Your task to perform on an android device: When is my next appointment? Image 0: 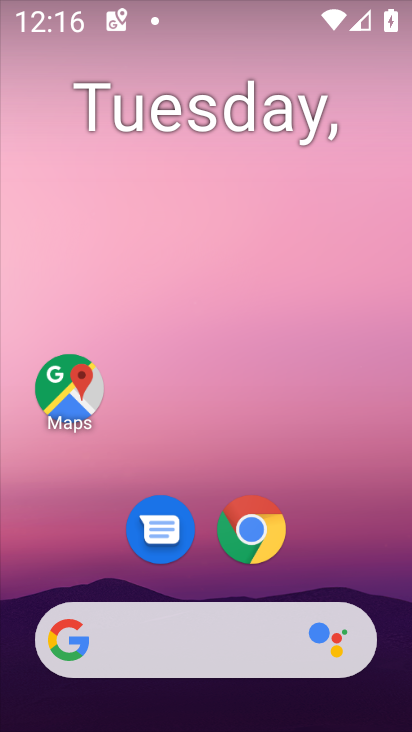
Step 0: drag from (185, 571) to (249, 81)
Your task to perform on an android device: When is my next appointment? Image 1: 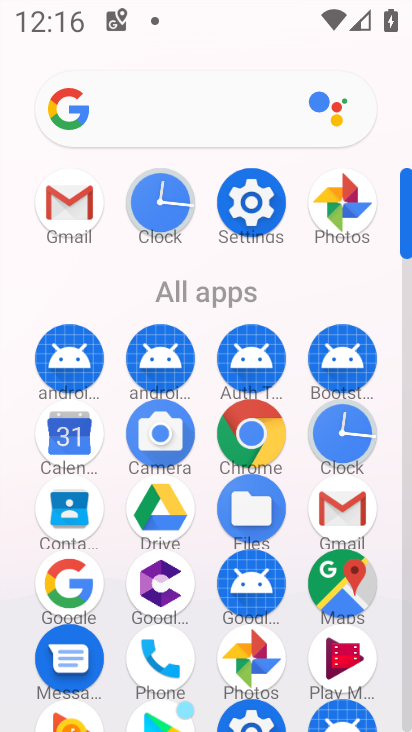
Step 1: click (75, 435)
Your task to perform on an android device: When is my next appointment? Image 2: 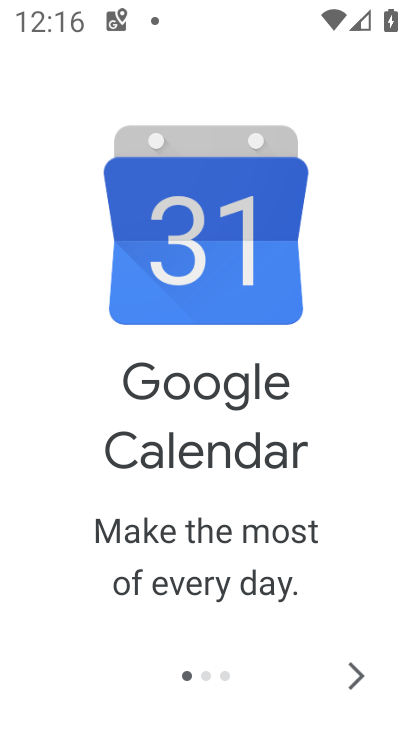
Step 2: click (361, 680)
Your task to perform on an android device: When is my next appointment? Image 3: 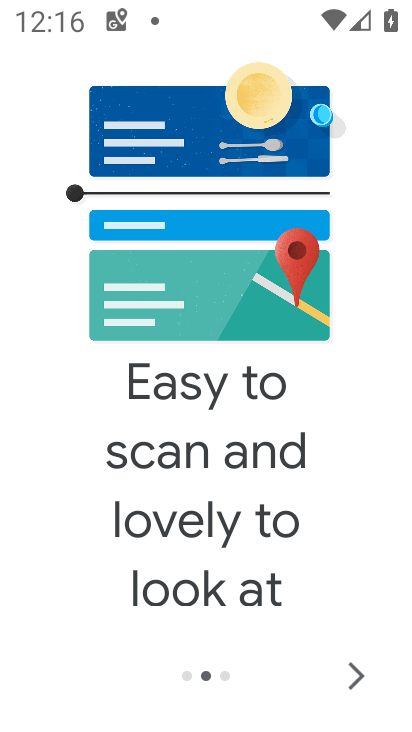
Step 3: click (352, 670)
Your task to perform on an android device: When is my next appointment? Image 4: 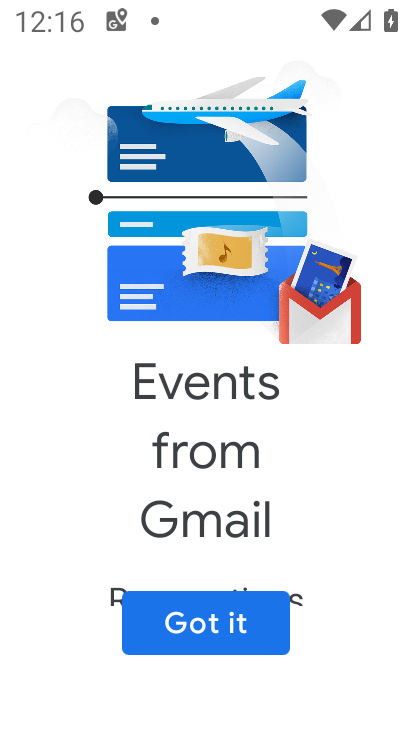
Step 4: click (241, 630)
Your task to perform on an android device: When is my next appointment? Image 5: 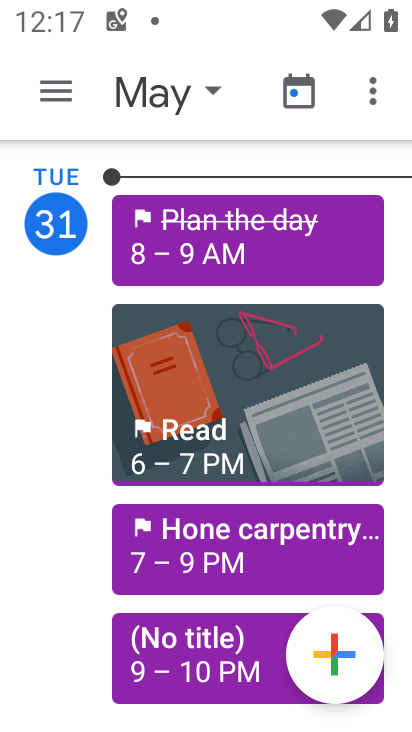
Step 5: drag from (211, 487) to (261, 124)
Your task to perform on an android device: When is my next appointment? Image 6: 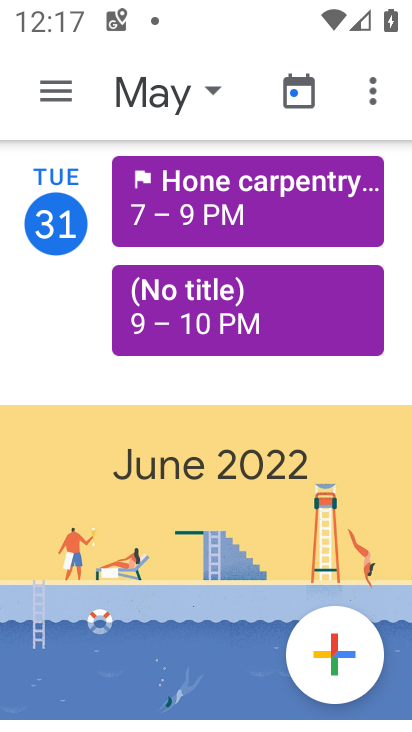
Step 6: drag from (236, 581) to (280, 130)
Your task to perform on an android device: When is my next appointment? Image 7: 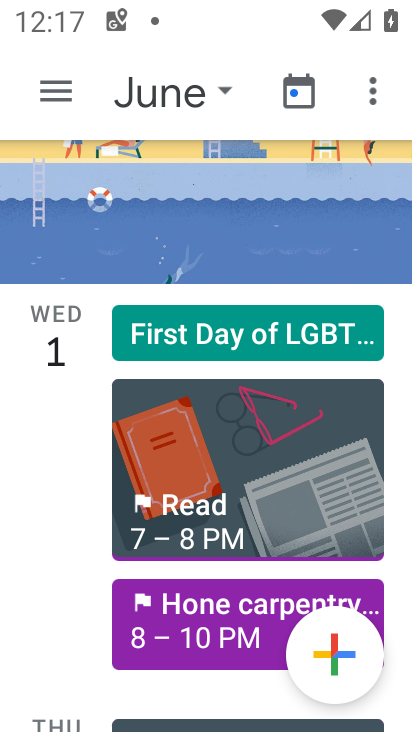
Step 7: drag from (199, 627) to (253, 134)
Your task to perform on an android device: When is my next appointment? Image 8: 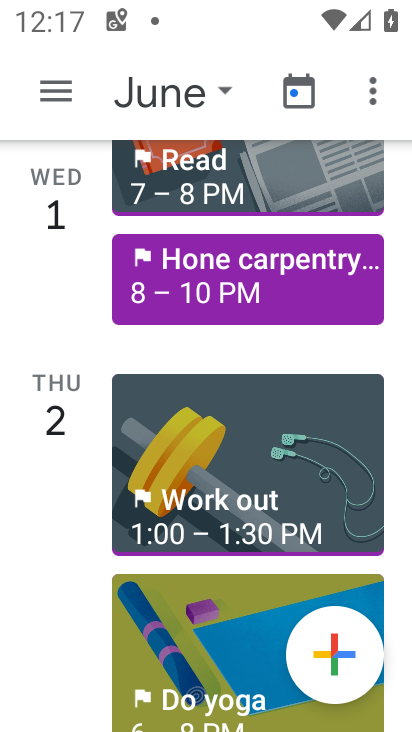
Step 8: drag from (219, 637) to (290, 124)
Your task to perform on an android device: When is my next appointment? Image 9: 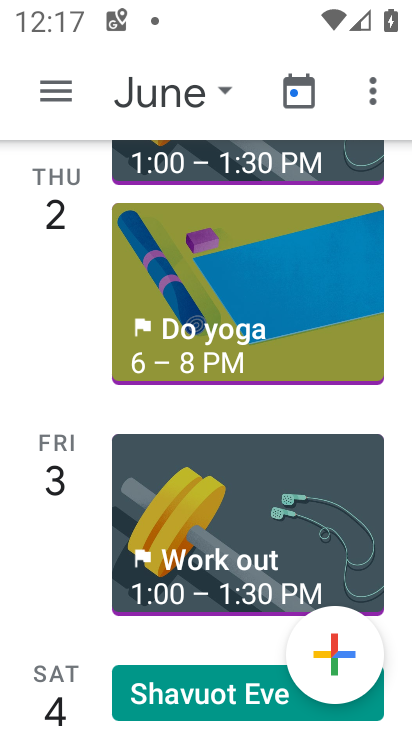
Step 9: drag from (197, 616) to (259, 178)
Your task to perform on an android device: When is my next appointment? Image 10: 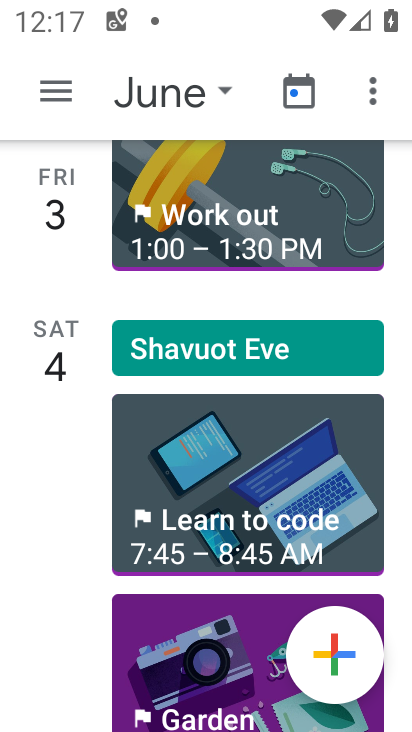
Step 10: drag from (187, 634) to (257, 72)
Your task to perform on an android device: When is my next appointment? Image 11: 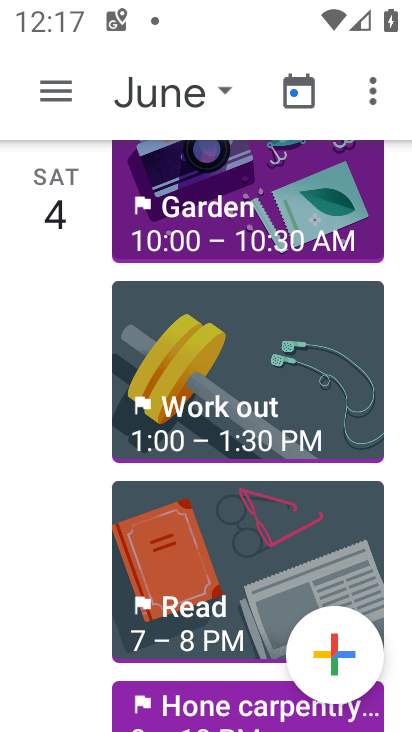
Step 11: drag from (173, 621) to (237, 169)
Your task to perform on an android device: When is my next appointment? Image 12: 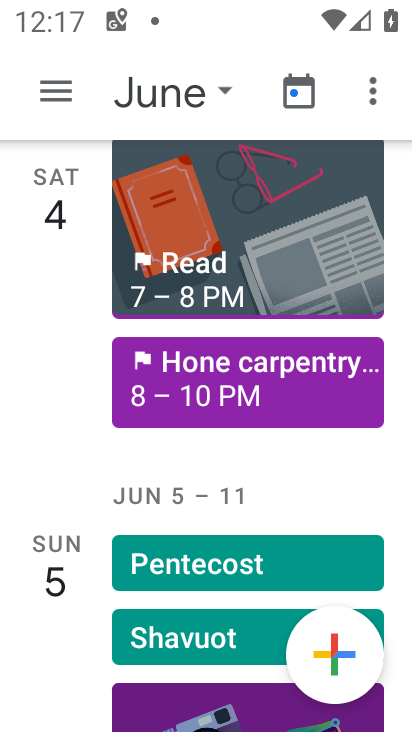
Step 12: drag from (170, 663) to (244, 175)
Your task to perform on an android device: When is my next appointment? Image 13: 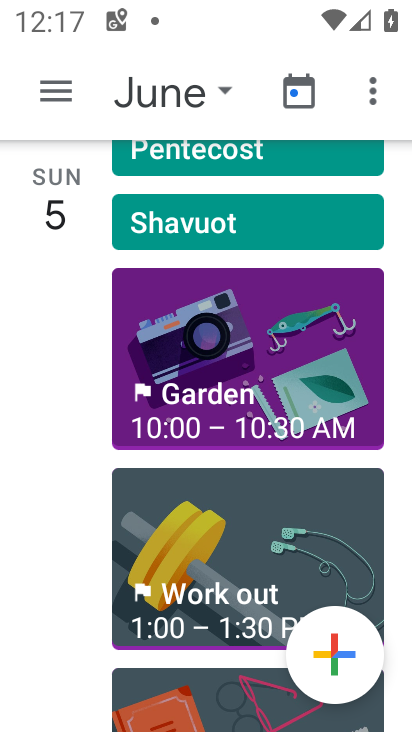
Step 13: drag from (175, 644) to (280, 93)
Your task to perform on an android device: When is my next appointment? Image 14: 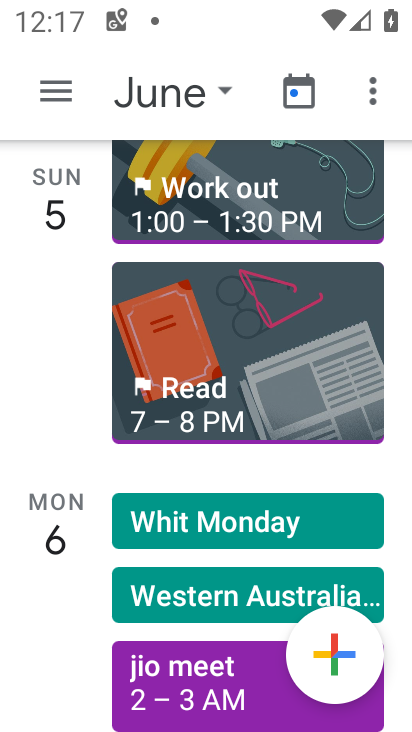
Step 14: click (191, 676)
Your task to perform on an android device: When is my next appointment? Image 15: 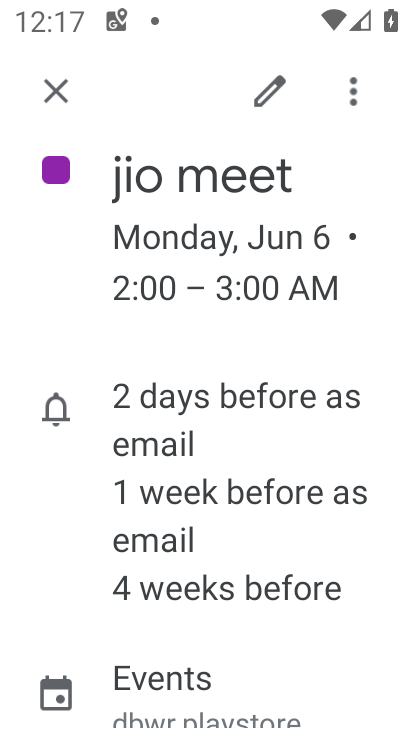
Step 15: task complete